Your task to perform on an android device: What's on my calendar tomorrow? Image 0: 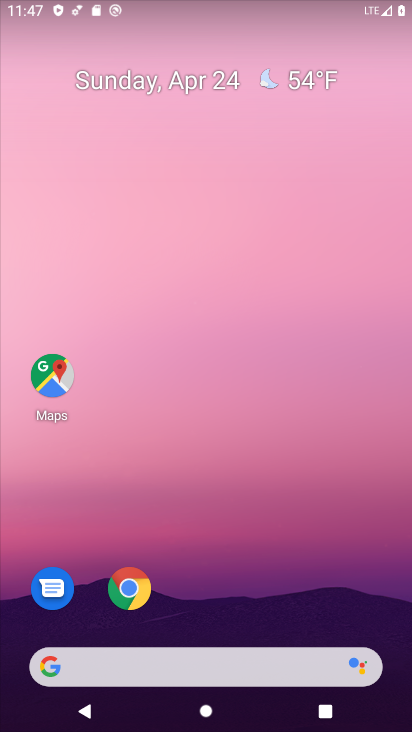
Step 0: drag from (203, 642) to (157, 50)
Your task to perform on an android device: What's on my calendar tomorrow? Image 1: 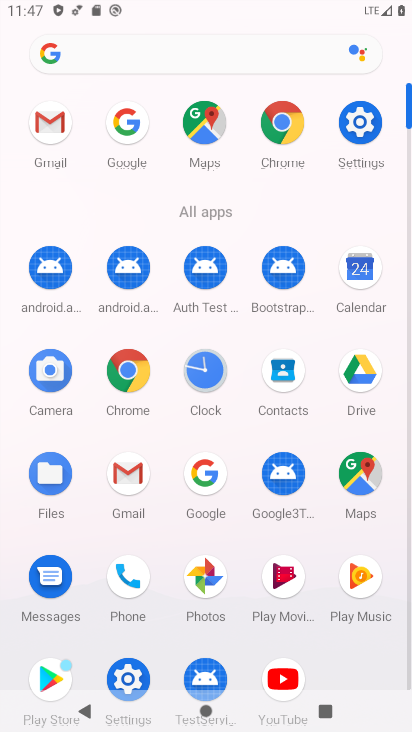
Step 1: click (367, 269)
Your task to perform on an android device: What's on my calendar tomorrow? Image 2: 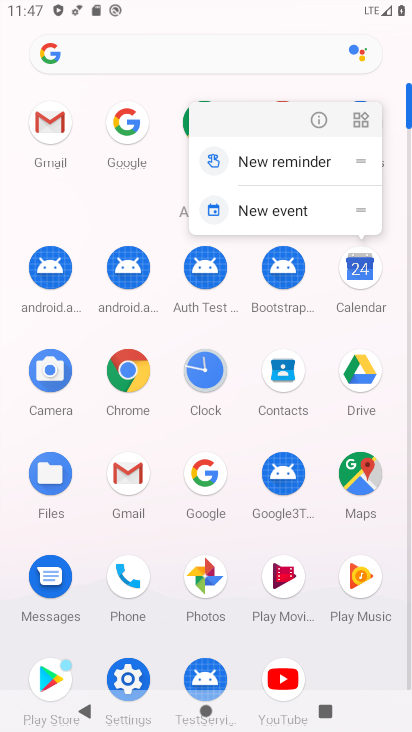
Step 2: click (359, 280)
Your task to perform on an android device: What's on my calendar tomorrow? Image 3: 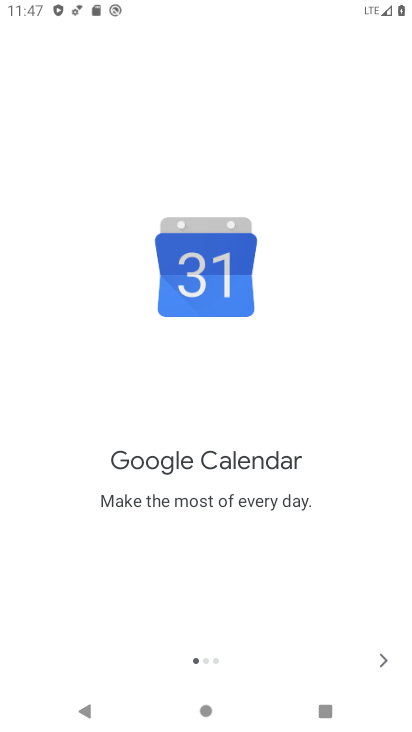
Step 3: click (388, 649)
Your task to perform on an android device: What's on my calendar tomorrow? Image 4: 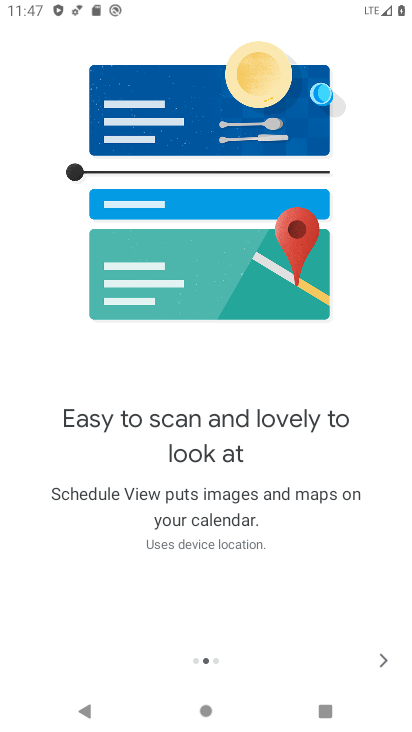
Step 4: click (381, 649)
Your task to perform on an android device: What's on my calendar tomorrow? Image 5: 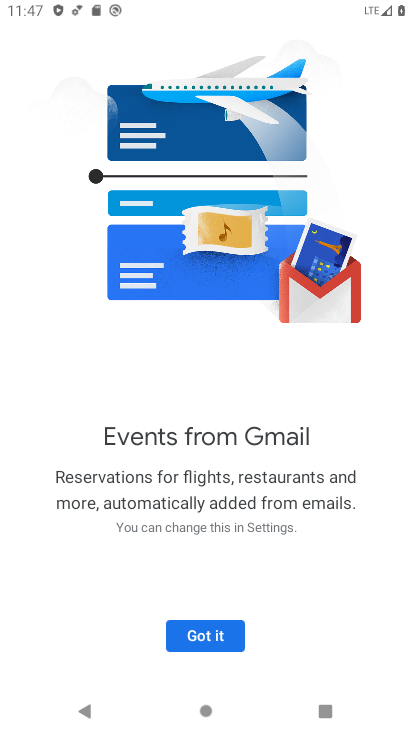
Step 5: click (210, 639)
Your task to perform on an android device: What's on my calendar tomorrow? Image 6: 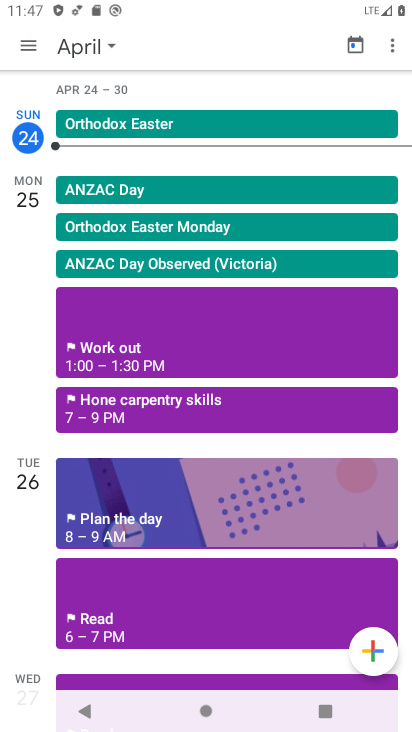
Step 6: click (24, 190)
Your task to perform on an android device: What's on my calendar tomorrow? Image 7: 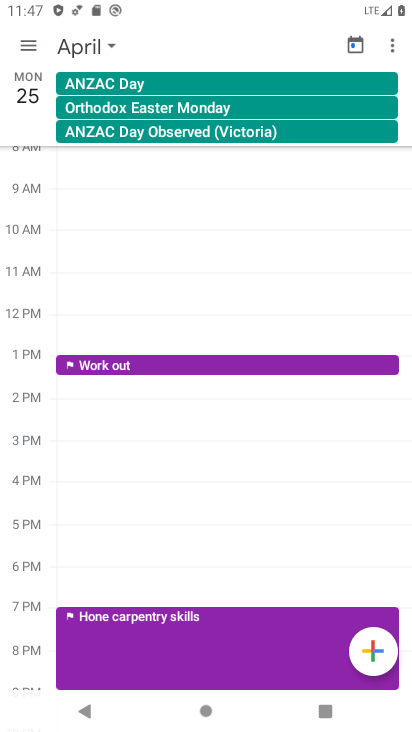
Step 7: task complete